Your task to perform on an android device: Go to Google maps Image 0: 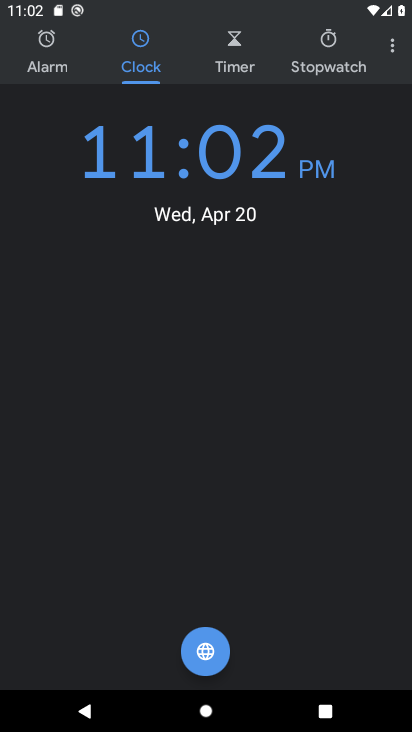
Step 0: press home button
Your task to perform on an android device: Go to Google maps Image 1: 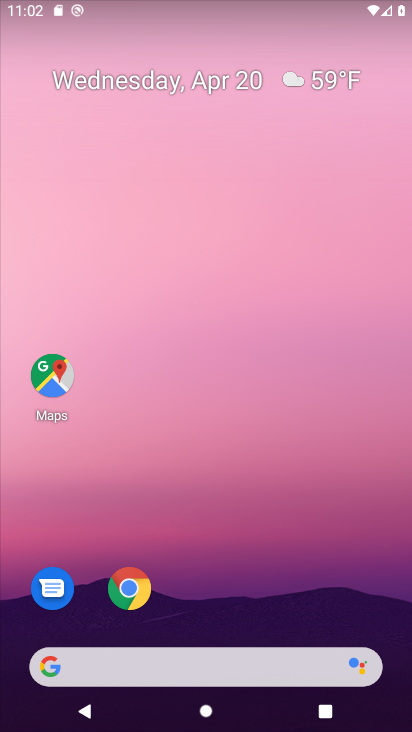
Step 1: click (48, 374)
Your task to perform on an android device: Go to Google maps Image 2: 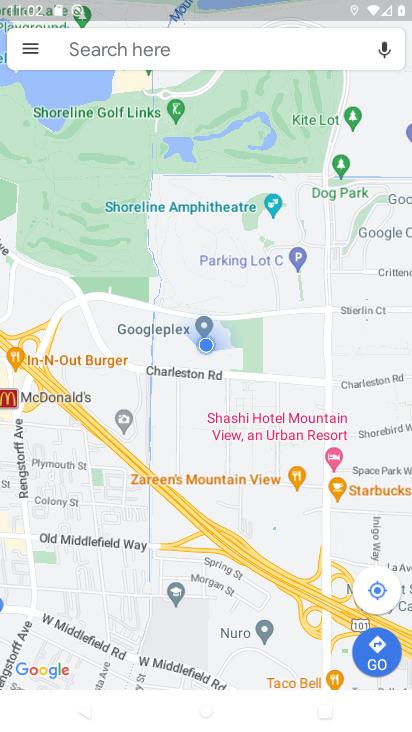
Step 2: task complete